Your task to perform on an android device: turn off airplane mode Image 0: 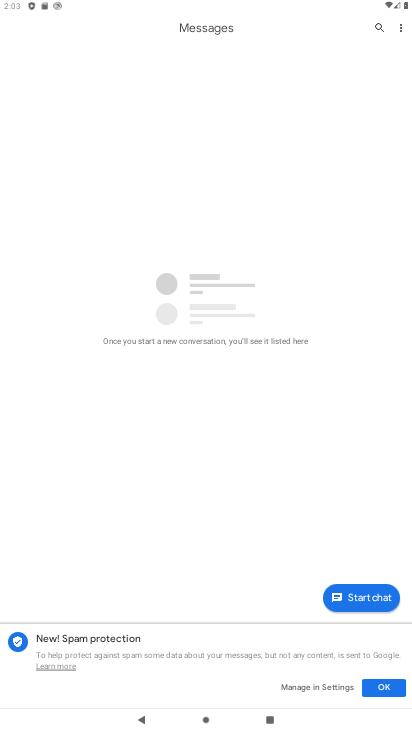
Step 0: press home button
Your task to perform on an android device: turn off airplane mode Image 1: 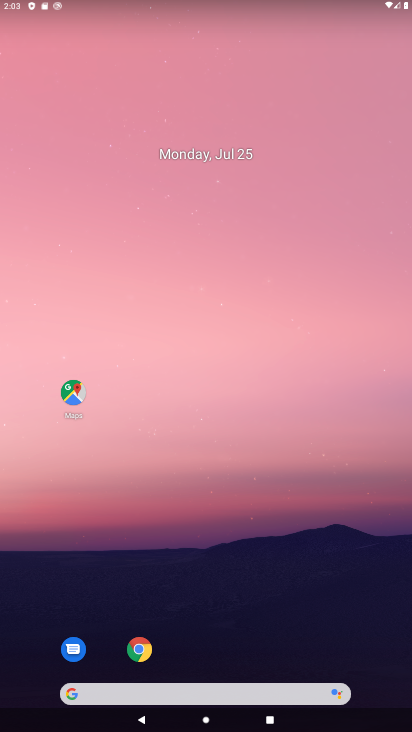
Step 1: drag from (366, 645) to (346, 111)
Your task to perform on an android device: turn off airplane mode Image 2: 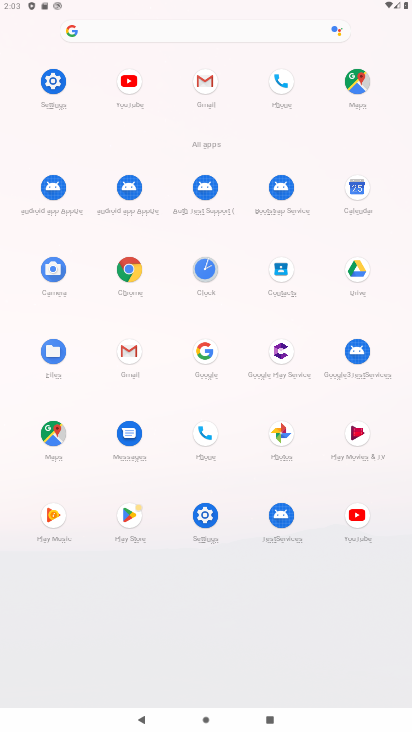
Step 2: click (205, 515)
Your task to perform on an android device: turn off airplane mode Image 3: 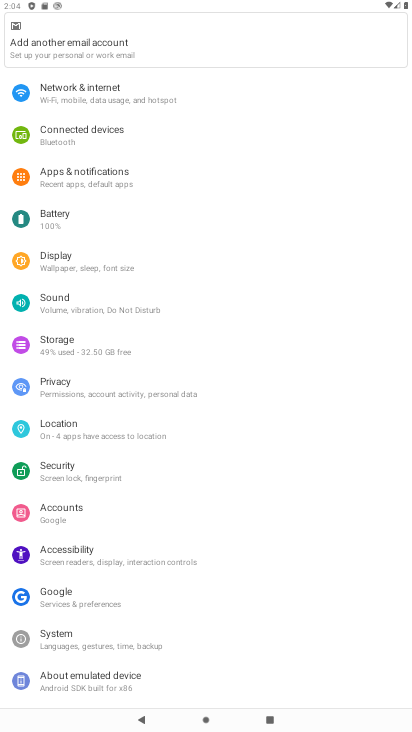
Step 3: click (70, 89)
Your task to perform on an android device: turn off airplane mode Image 4: 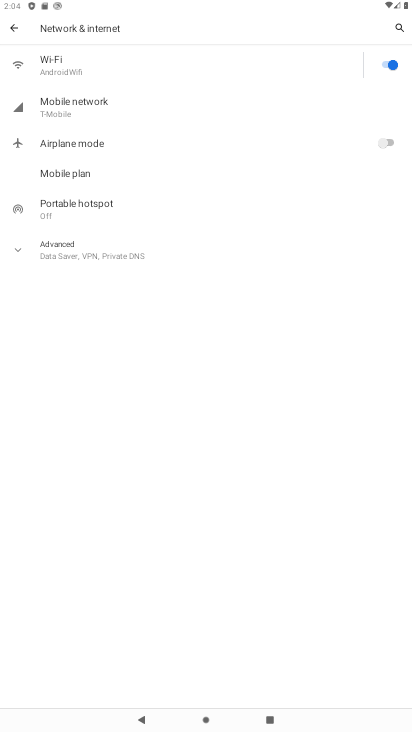
Step 4: task complete